Your task to perform on an android device: open a bookmark in the chrome app Image 0: 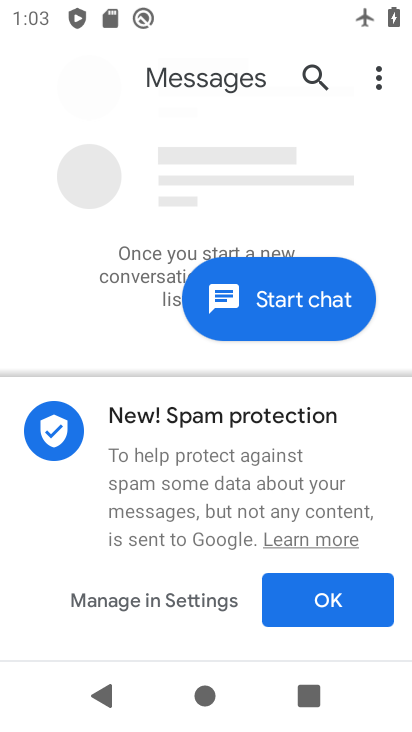
Step 0: press home button
Your task to perform on an android device: open a bookmark in the chrome app Image 1: 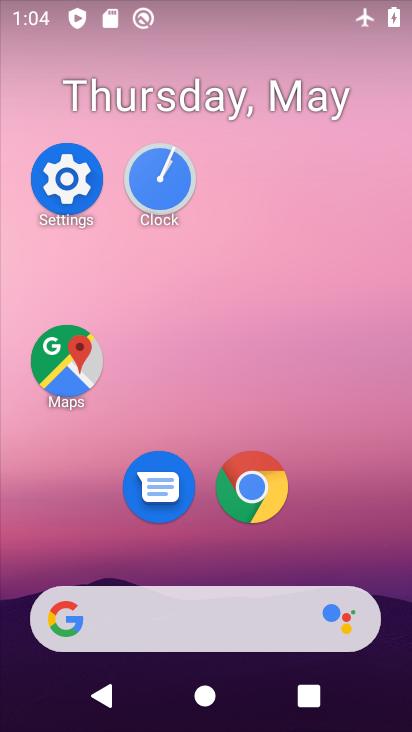
Step 1: click (248, 487)
Your task to perform on an android device: open a bookmark in the chrome app Image 2: 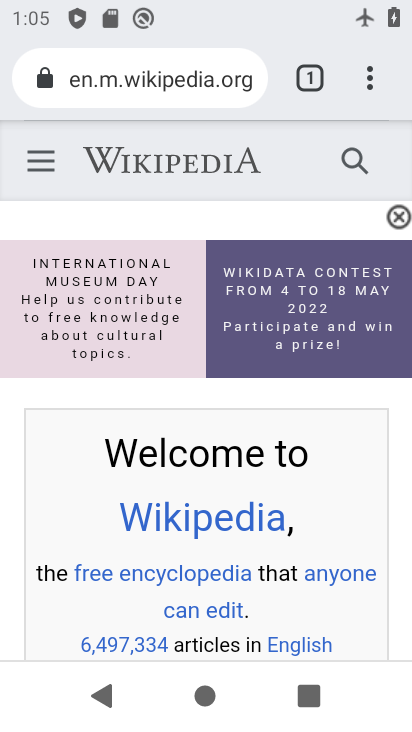
Step 2: click (368, 69)
Your task to perform on an android device: open a bookmark in the chrome app Image 3: 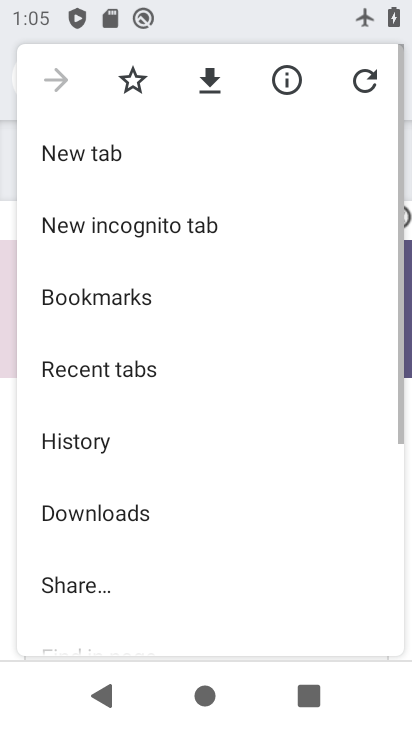
Step 3: click (151, 302)
Your task to perform on an android device: open a bookmark in the chrome app Image 4: 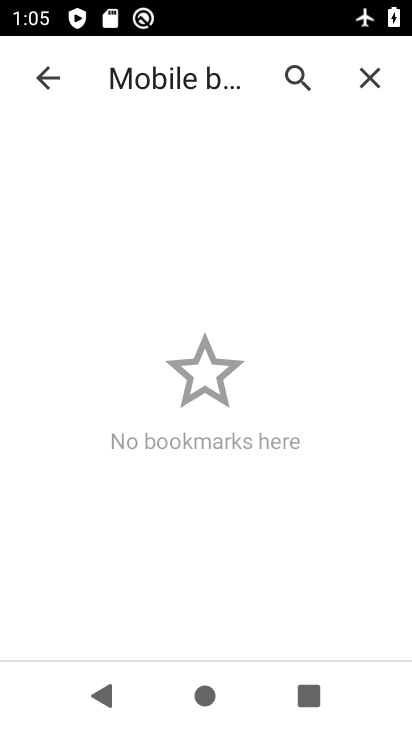
Step 4: task complete